Your task to perform on an android device: turn on the 12-hour format for clock Image 0: 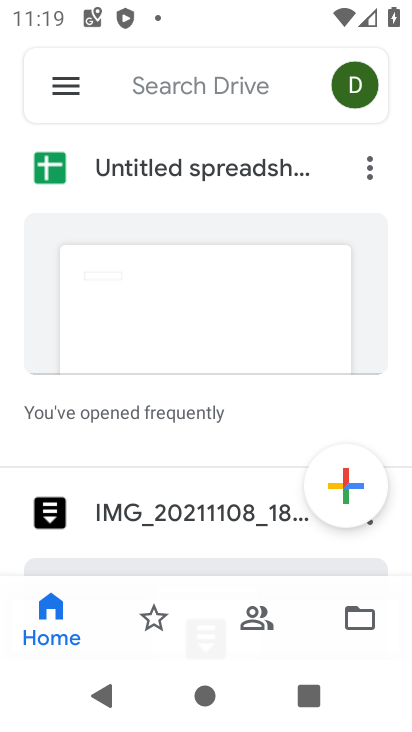
Step 0: press home button
Your task to perform on an android device: turn on the 12-hour format for clock Image 1: 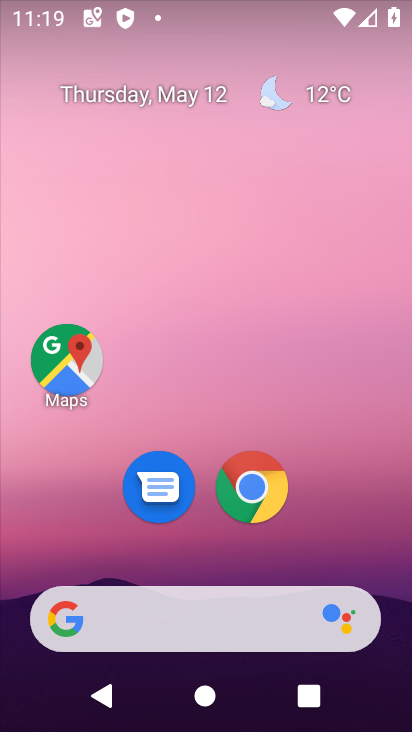
Step 1: drag from (367, 559) to (279, 3)
Your task to perform on an android device: turn on the 12-hour format for clock Image 2: 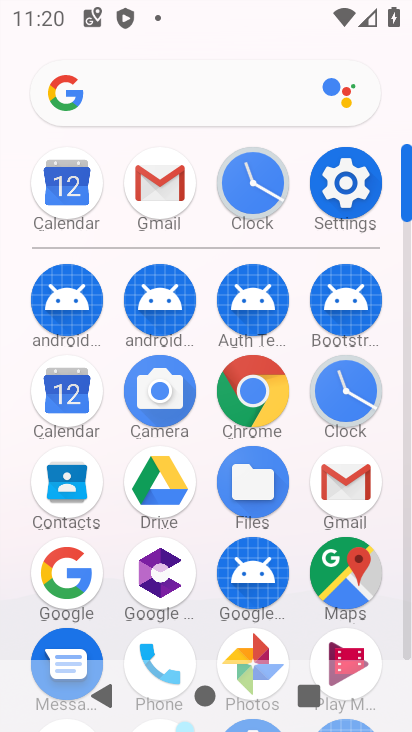
Step 2: click (247, 194)
Your task to perform on an android device: turn on the 12-hour format for clock Image 3: 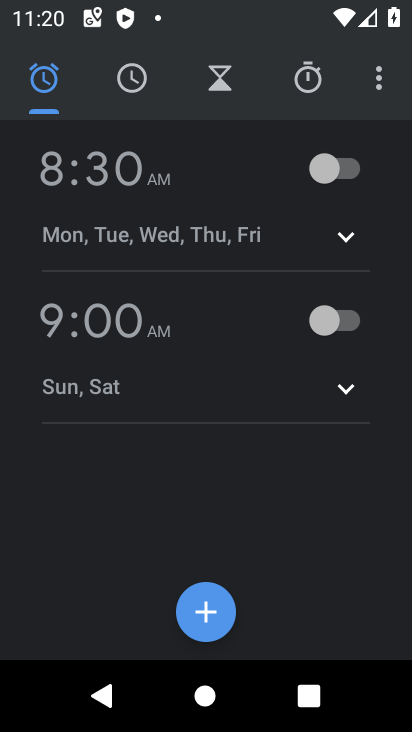
Step 3: click (381, 83)
Your task to perform on an android device: turn on the 12-hour format for clock Image 4: 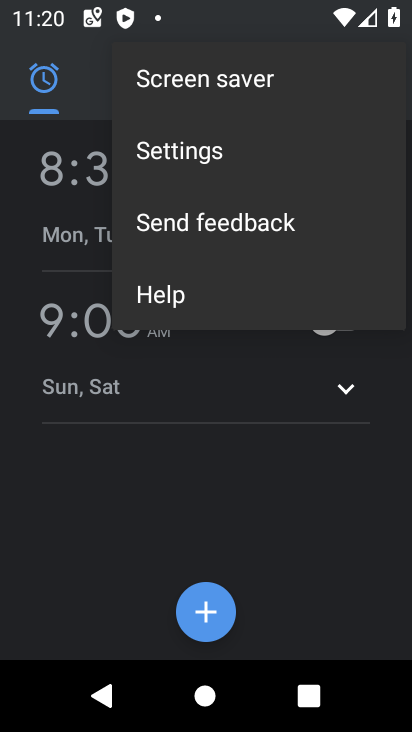
Step 4: click (172, 160)
Your task to perform on an android device: turn on the 12-hour format for clock Image 5: 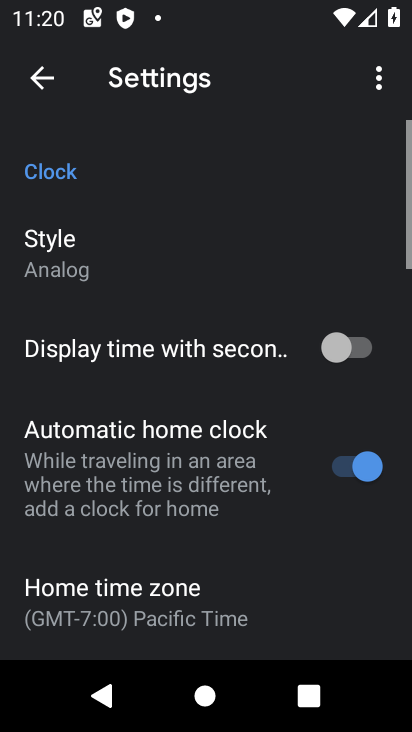
Step 5: drag from (229, 518) to (216, 133)
Your task to perform on an android device: turn on the 12-hour format for clock Image 6: 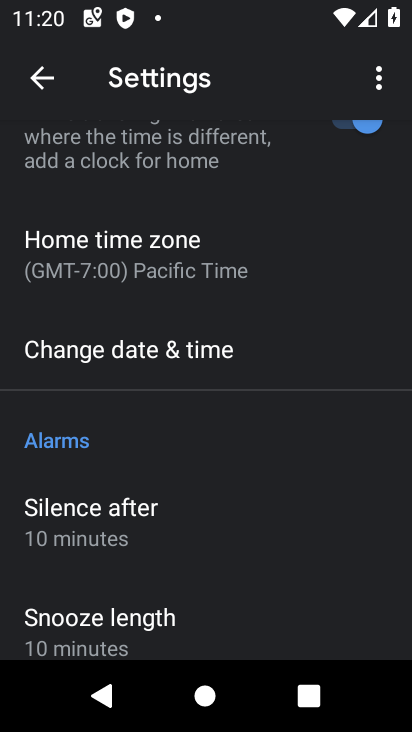
Step 6: click (165, 357)
Your task to perform on an android device: turn on the 12-hour format for clock Image 7: 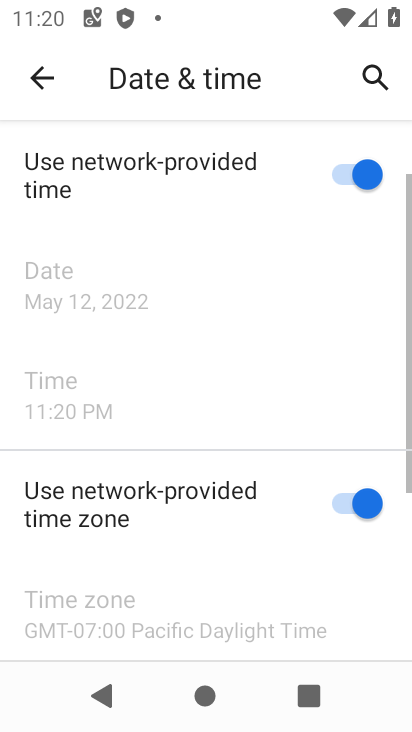
Step 7: task complete